Your task to perform on an android device: turn off improve location accuracy Image 0: 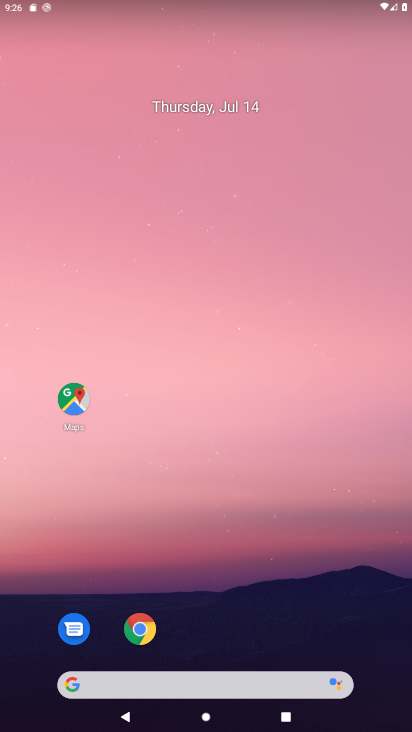
Step 0: drag from (214, 573) to (184, 194)
Your task to perform on an android device: turn off improve location accuracy Image 1: 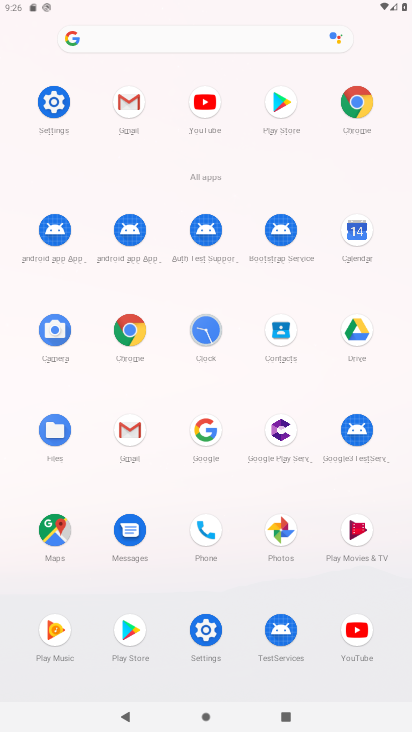
Step 1: click (196, 636)
Your task to perform on an android device: turn off improve location accuracy Image 2: 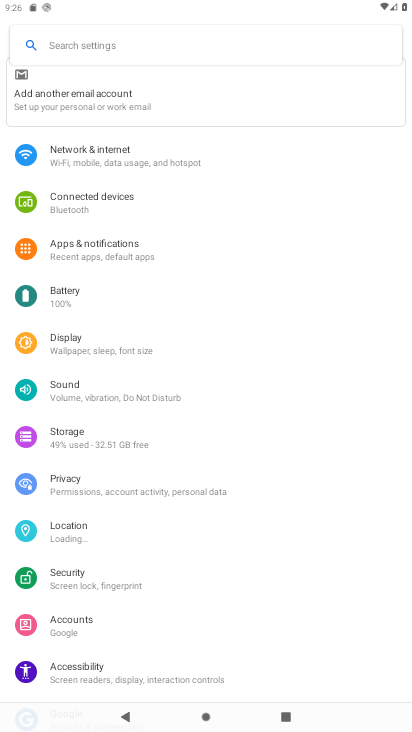
Step 2: drag from (176, 587) to (158, 261)
Your task to perform on an android device: turn off improve location accuracy Image 3: 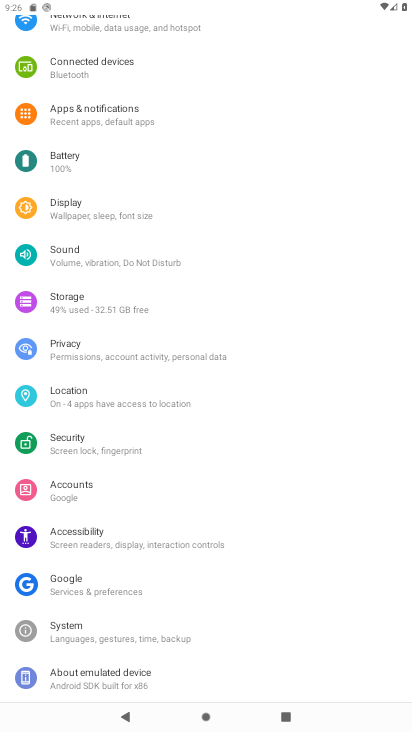
Step 3: click (47, 393)
Your task to perform on an android device: turn off improve location accuracy Image 4: 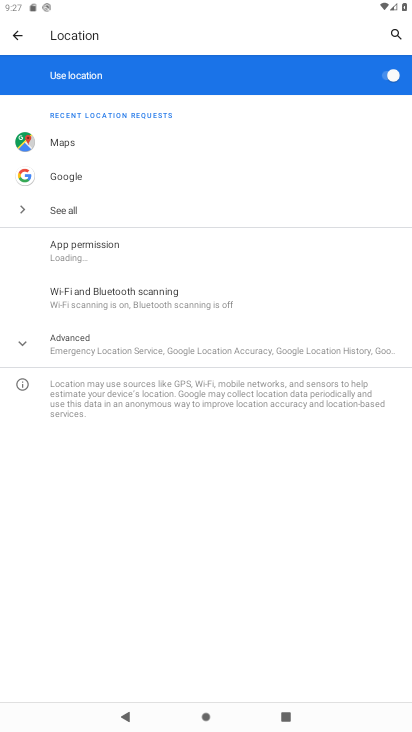
Step 4: click (88, 335)
Your task to perform on an android device: turn off improve location accuracy Image 5: 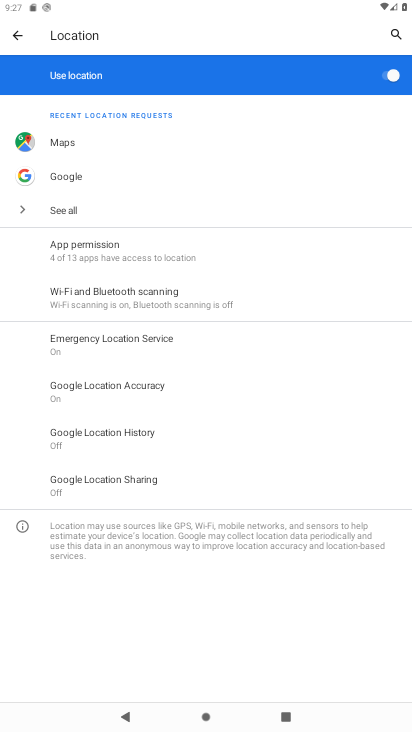
Step 5: click (113, 381)
Your task to perform on an android device: turn off improve location accuracy Image 6: 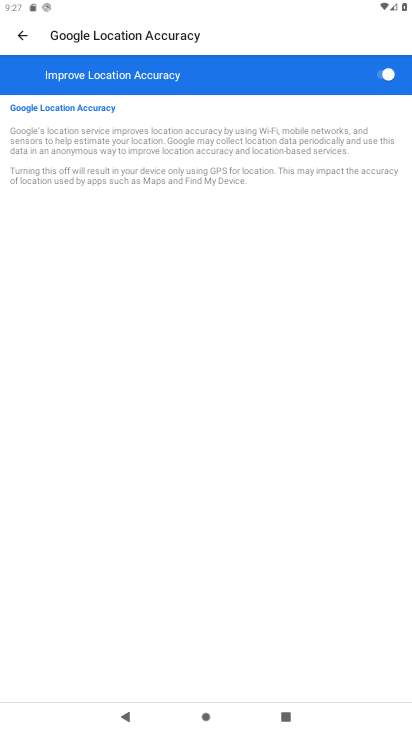
Step 6: click (254, 64)
Your task to perform on an android device: turn off improve location accuracy Image 7: 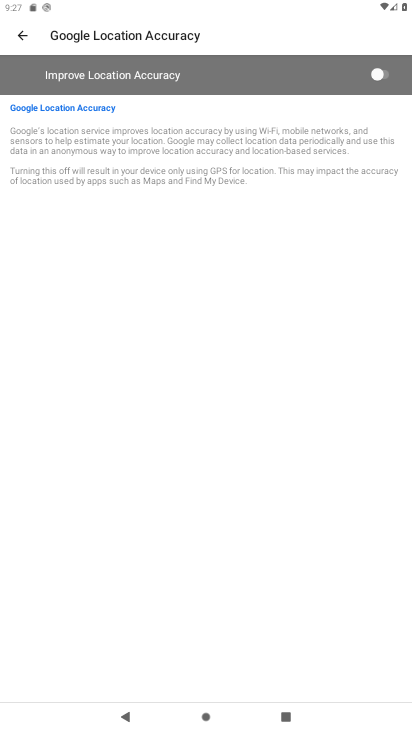
Step 7: task complete